Your task to perform on an android device: turn off wifi Image 0: 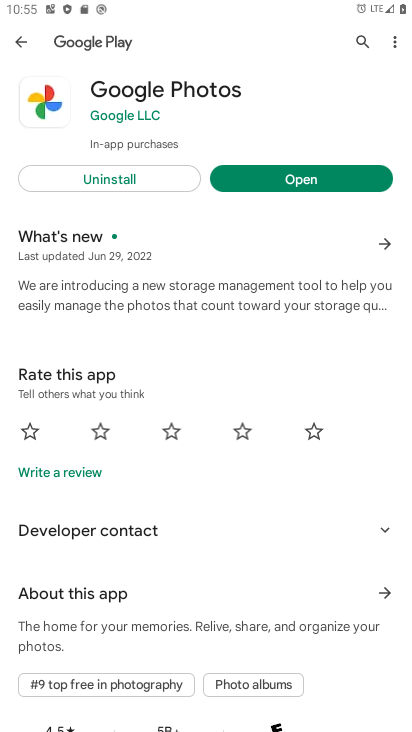
Step 0: press home button
Your task to perform on an android device: turn off wifi Image 1: 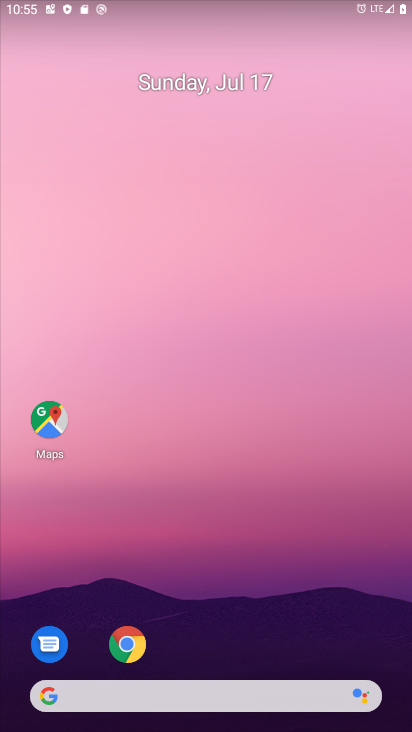
Step 1: drag from (331, 546) to (411, 88)
Your task to perform on an android device: turn off wifi Image 2: 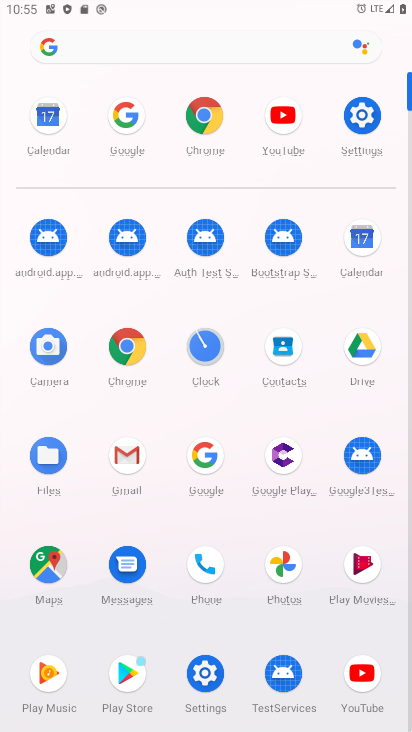
Step 2: click (362, 118)
Your task to perform on an android device: turn off wifi Image 3: 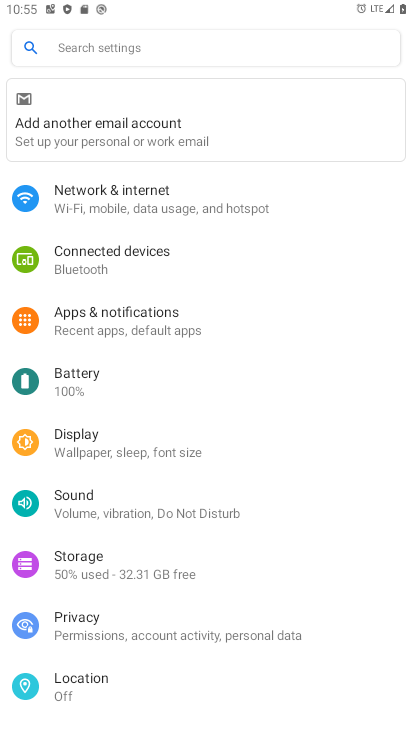
Step 3: click (153, 189)
Your task to perform on an android device: turn off wifi Image 4: 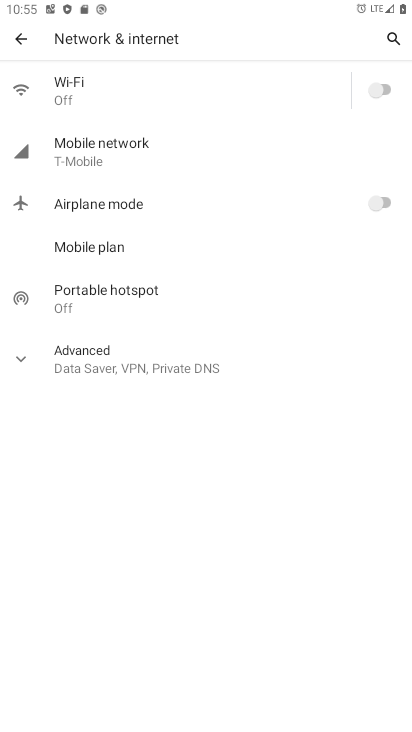
Step 4: task complete